Your task to perform on an android device: Open Wikipedia Image 0: 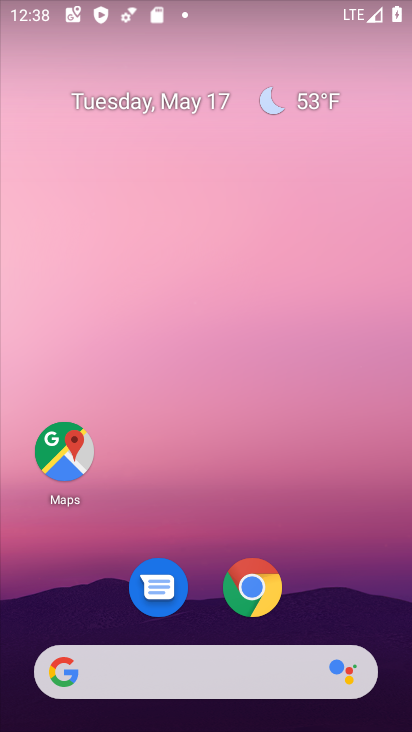
Step 0: click (247, 615)
Your task to perform on an android device: Open Wikipedia Image 1: 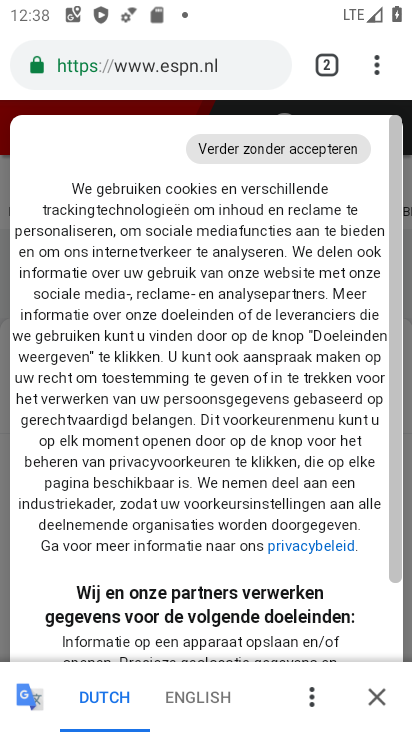
Step 1: click (313, 57)
Your task to perform on an android device: Open Wikipedia Image 2: 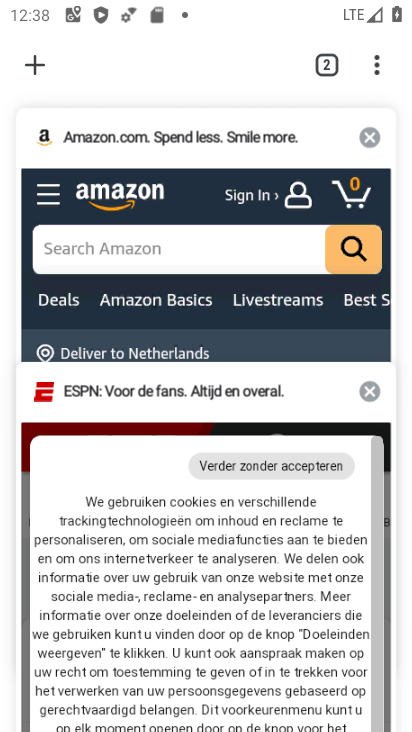
Step 2: click (46, 74)
Your task to perform on an android device: Open Wikipedia Image 3: 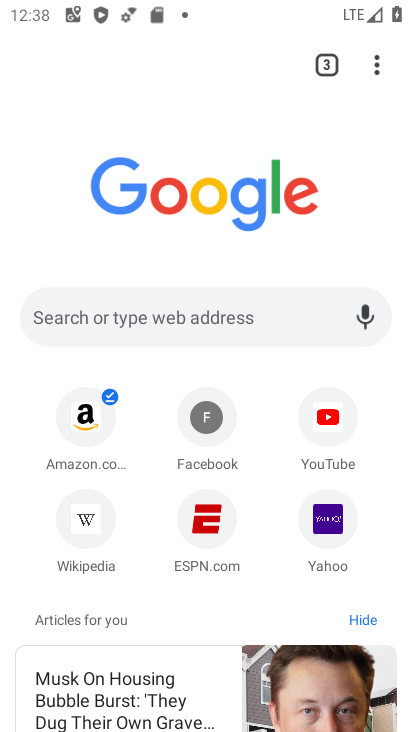
Step 3: click (93, 538)
Your task to perform on an android device: Open Wikipedia Image 4: 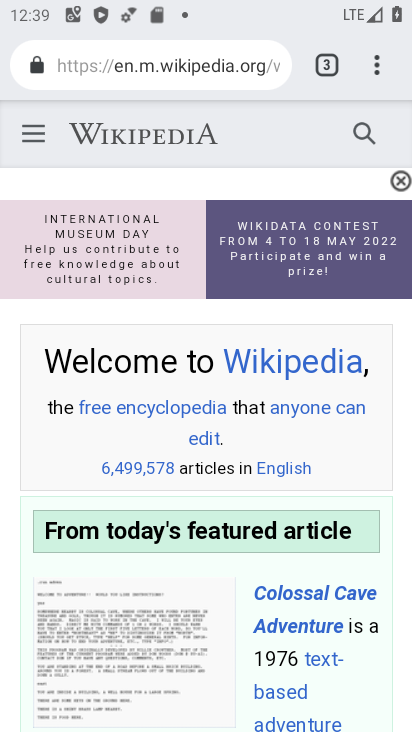
Step 4: task complete